Your task to perform on an android device: snooze an email in the gmail app Image 0: 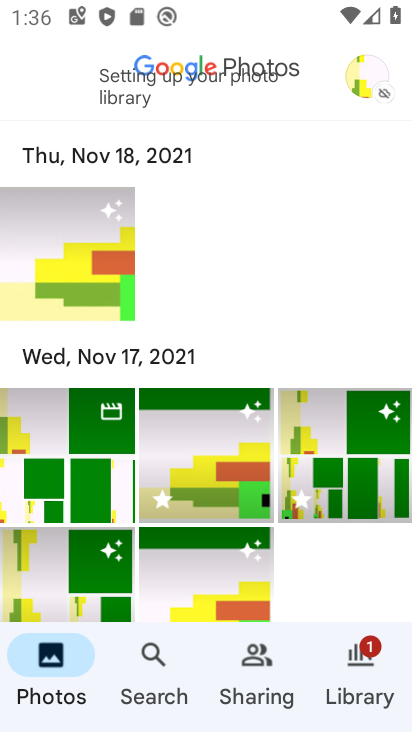
Step 0: press home button
Your task to perform on an android device: snooze an email in the gmail app Image 1: 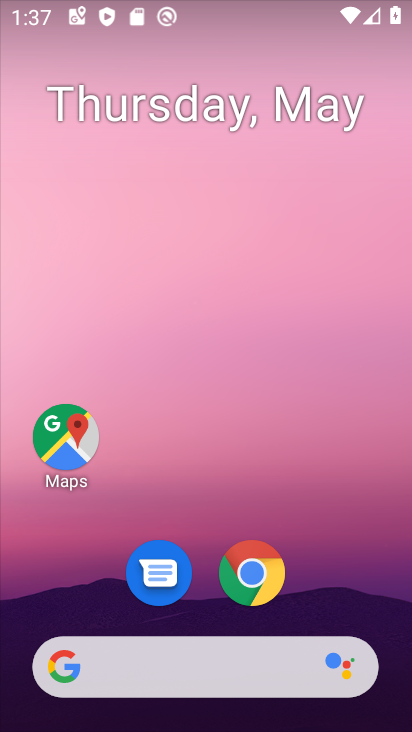
Step 1: drag from (222, 648) to (190, 106)
Your task to perform on an android device: snooze an email in the gmail app Image 2: 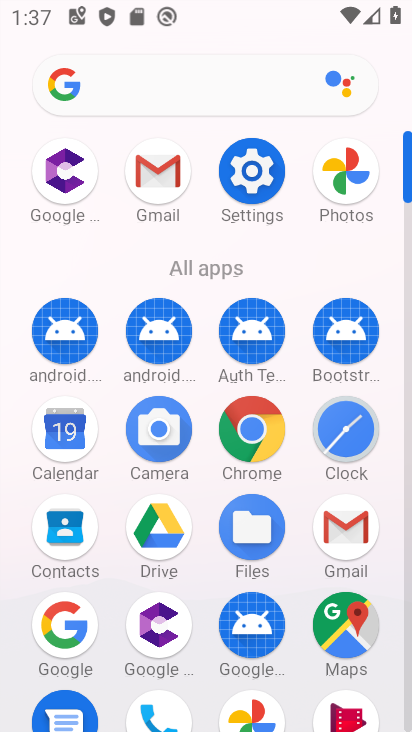
Step 2: click (153, 176)
Your task to perform on an android device: snooze an email in the gmail app Image 3: 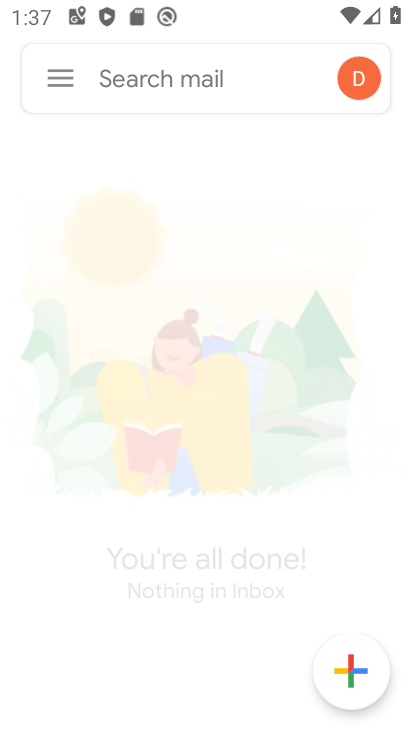
Step 3: click (52, 59)
Your task to perform on an android device: snooze an email in the gmail app Image 4: 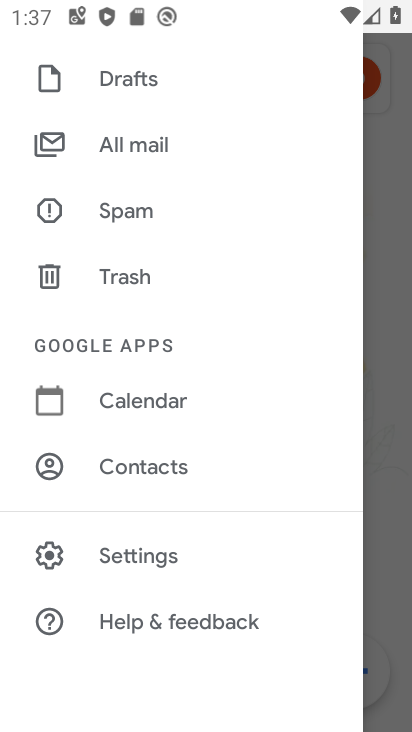
Step 4: drag from (147, 119) to (180, 532)
Your task to perform on an android device: snooze an email in the gmail app Image 5: 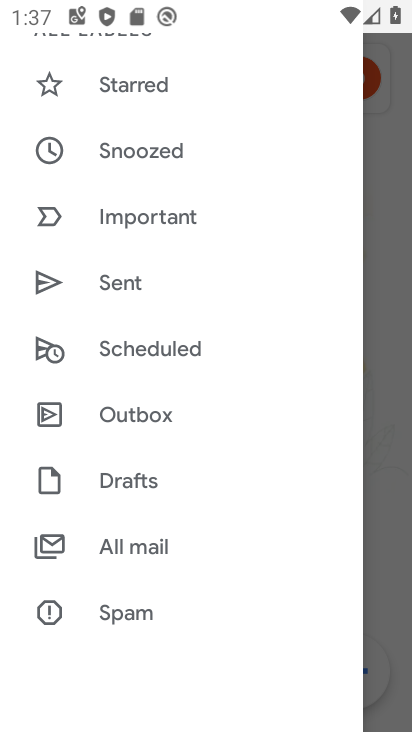
Step 5: click (160, 159)
Your task to perform on an android device: snooze an email in the gmail app Image 6: 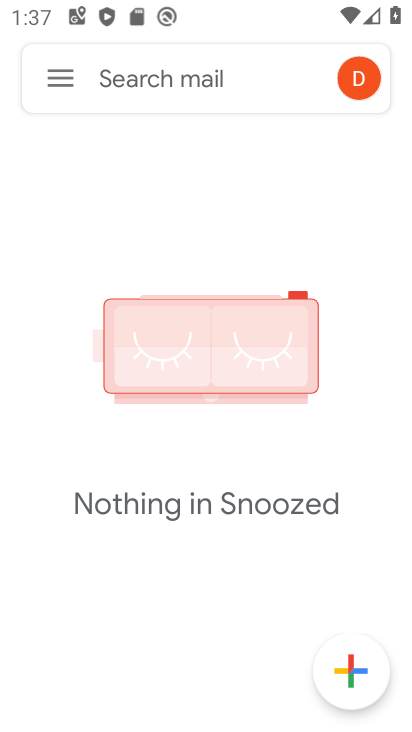
Step 6: task complete